Your task to perform on an android device: Search for the Best selling coffee table on Ikea Image 0: 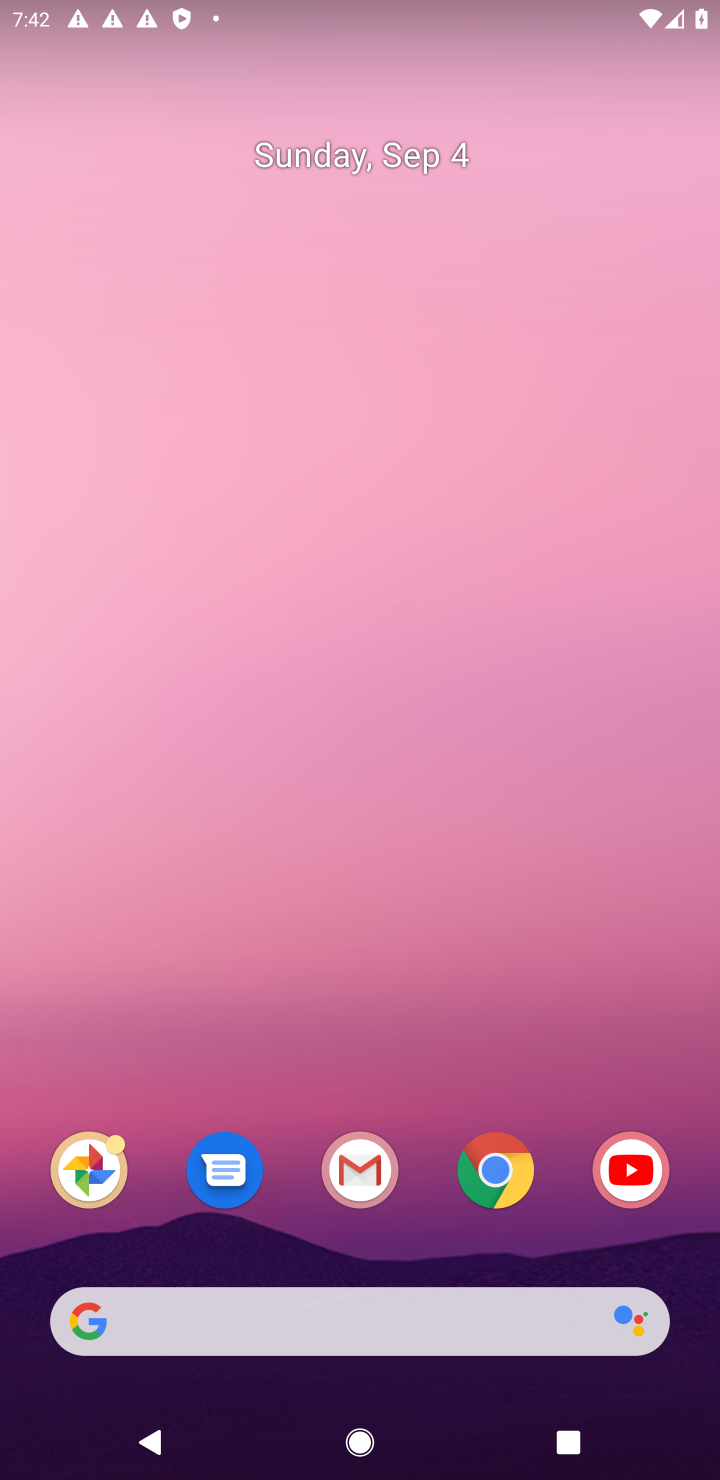
Step 0: click (484, 1170)
Your task to perform on an android device: Search for the Best selling coffee table on Ikea Image 1: 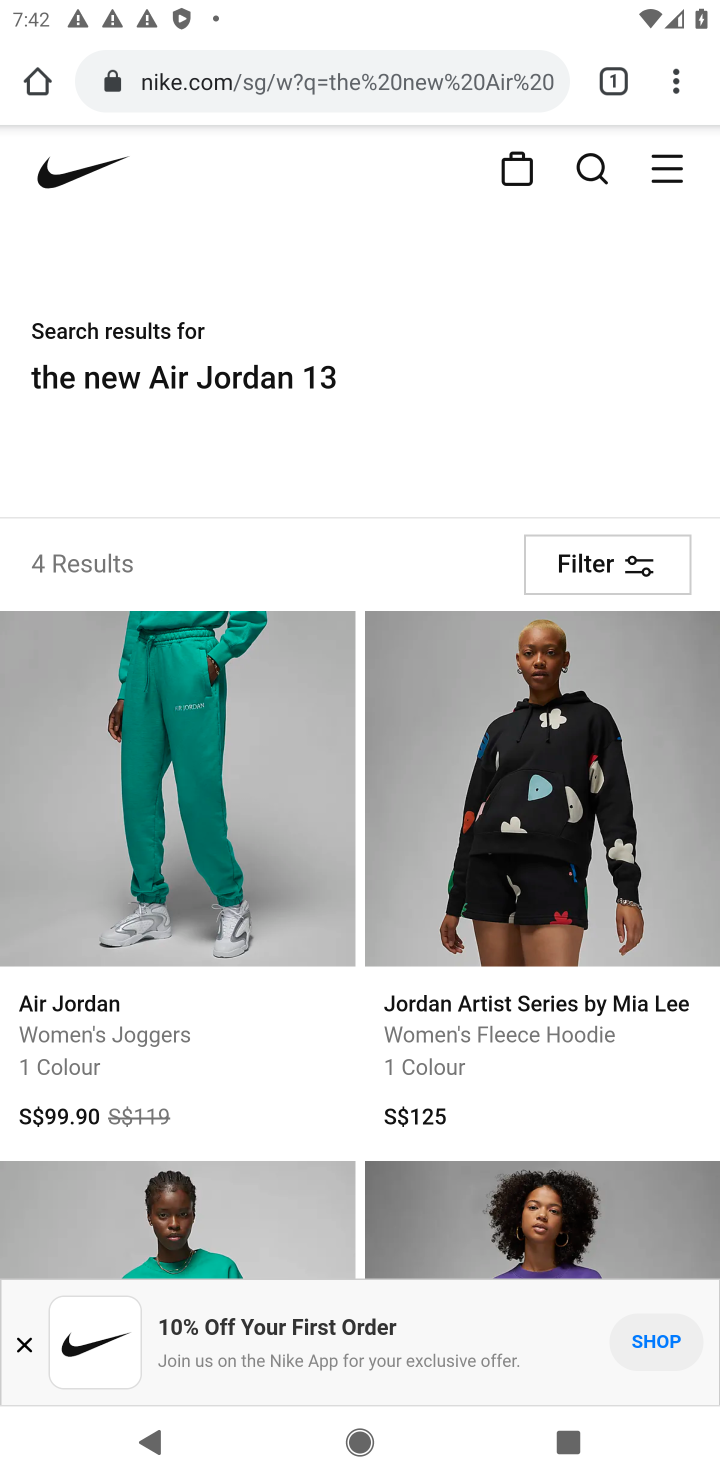
Step 1: click (280, 77)
Your task to perform on an android device: Search for the Best selling coffee table on Ikea Image 2: 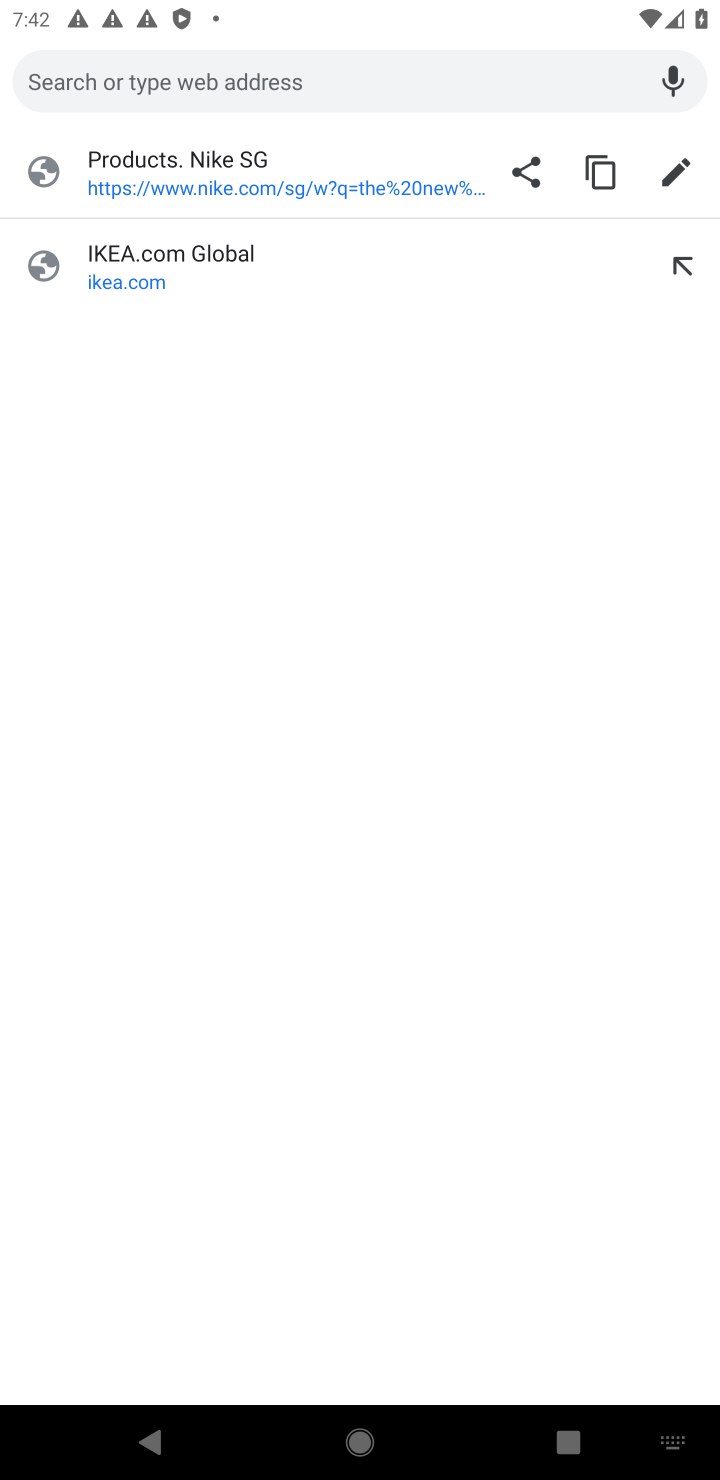
Step 2: type "IKea"
Your task to perform on an android device: Search for the Best selling coffee table on Ikea Image 3: 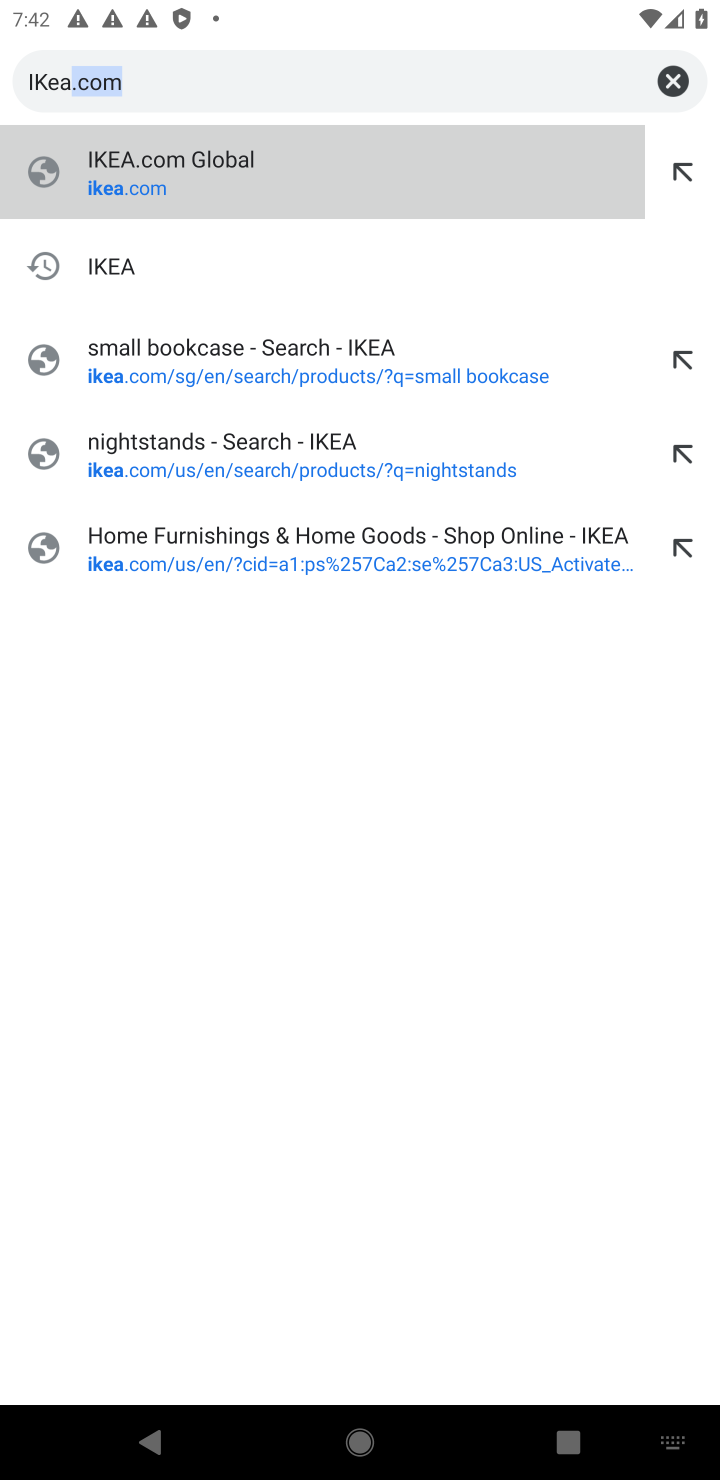
Step 3: click (122, 261)
Your task to perform on an android device: Search for the Best selling coffee table on Ikea Image 4: 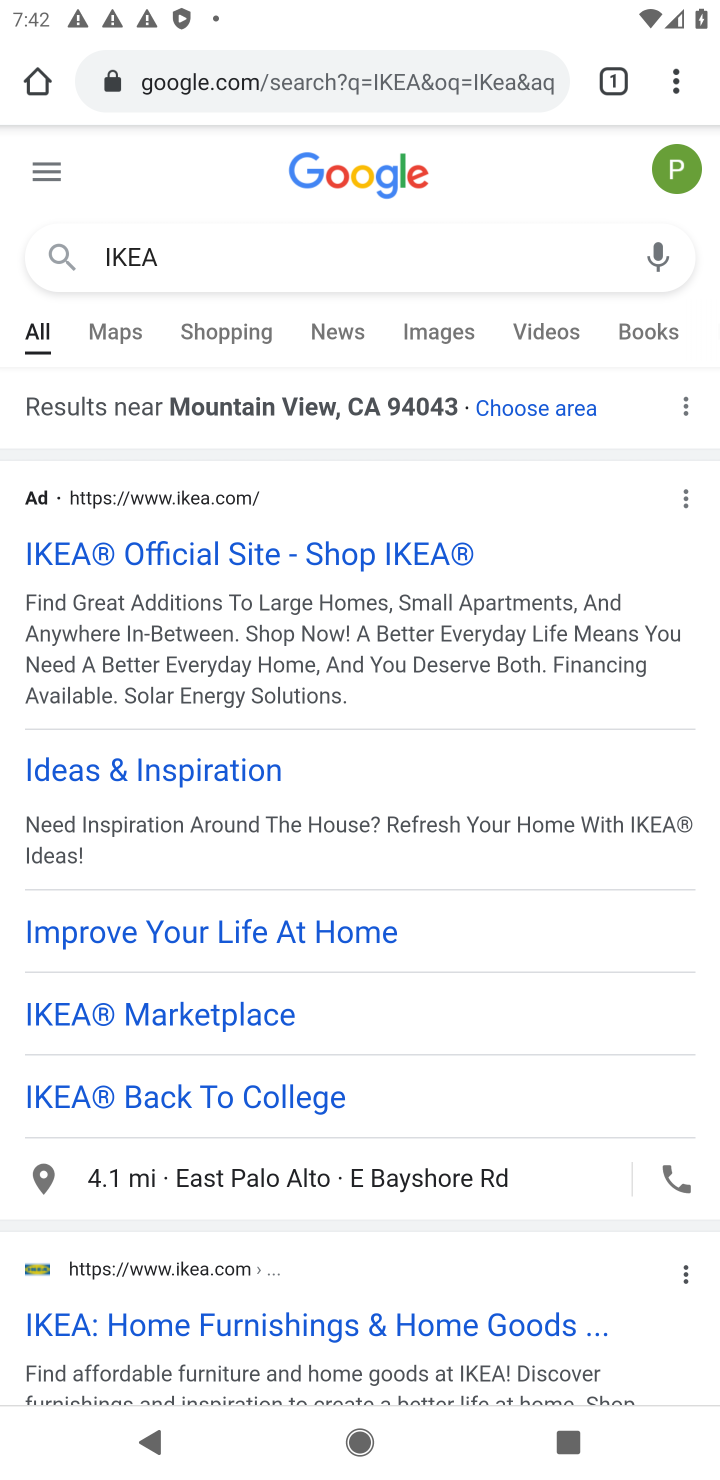
Step 4: click (216, 587)
Your task to perform on an android device: Search for the Best selling coffee table on Ikea Image 5: 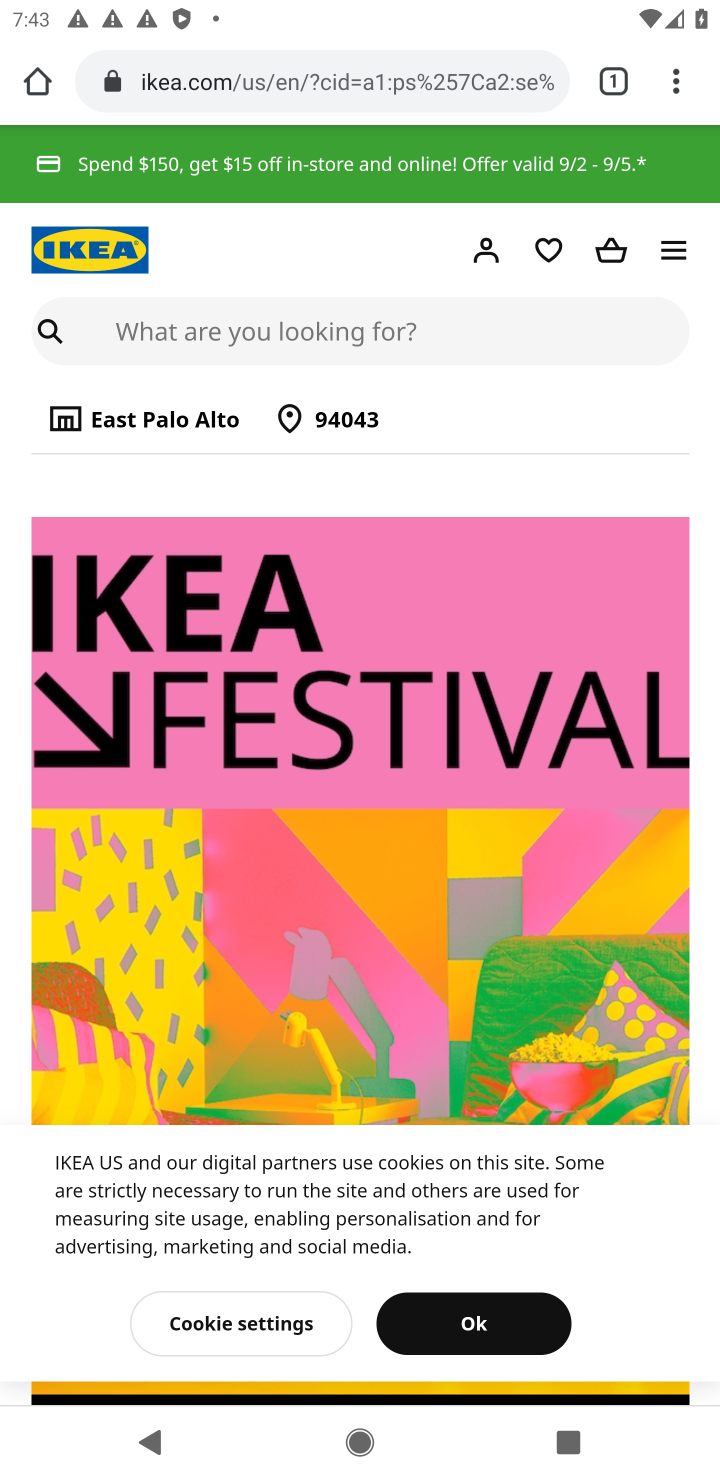
Step 5: click (392, 317)
Your task to perform on an android device: Search for the Best selling coffee table on Ikea Image 6: 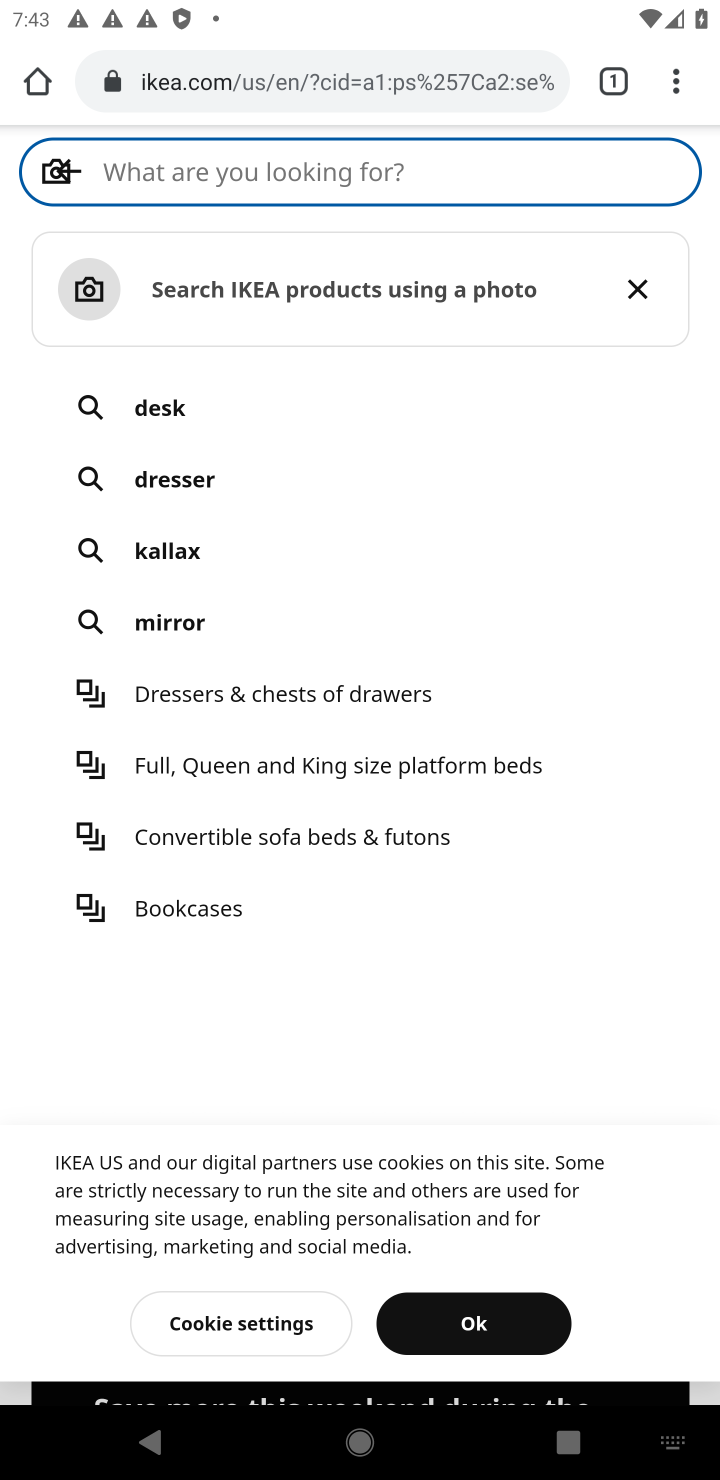
Step 6: type "the Best selling coffee table"
Your task to perform on an android device: Search for the Best selling coffee table on Ikea Image 7: 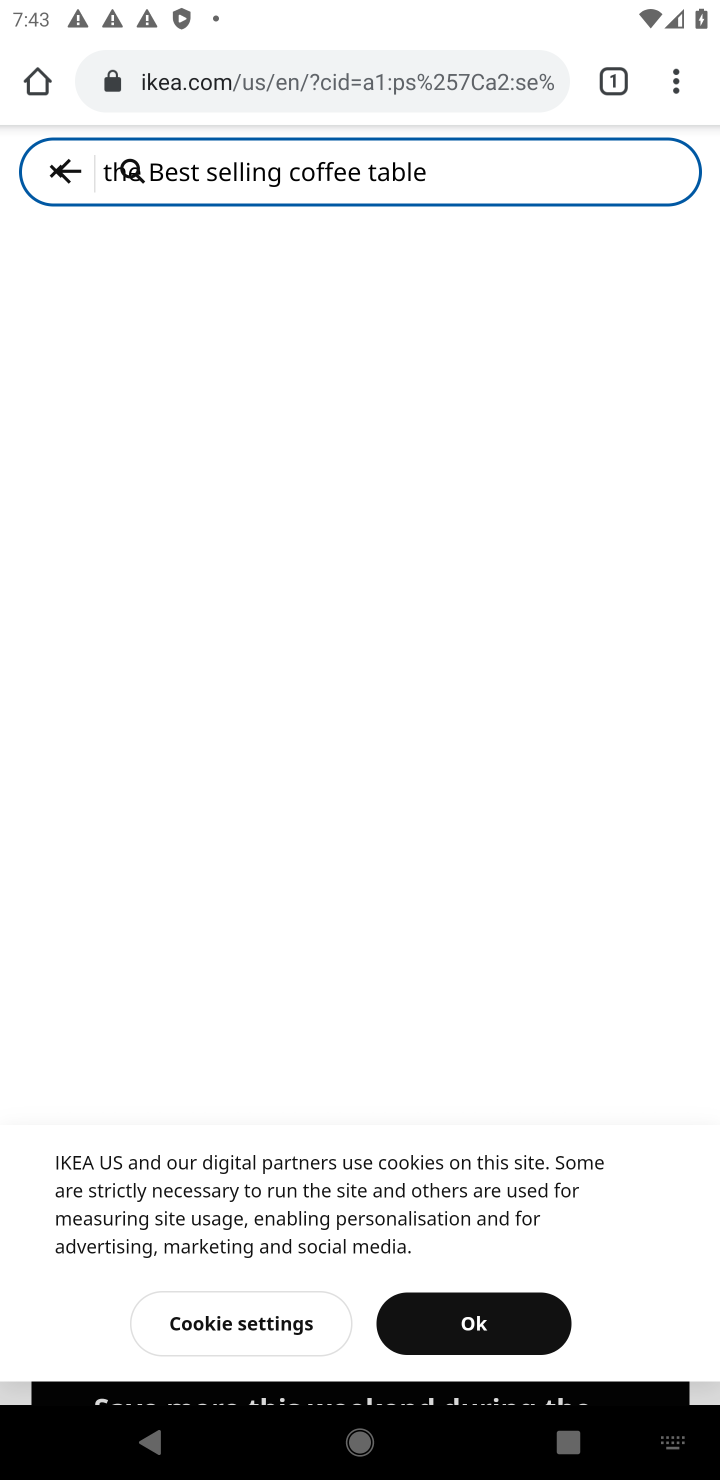
Step 7: click (436, 1308)
Your task to perform on an android device: Search for the Best selling coffee table on Ikea Image 8: 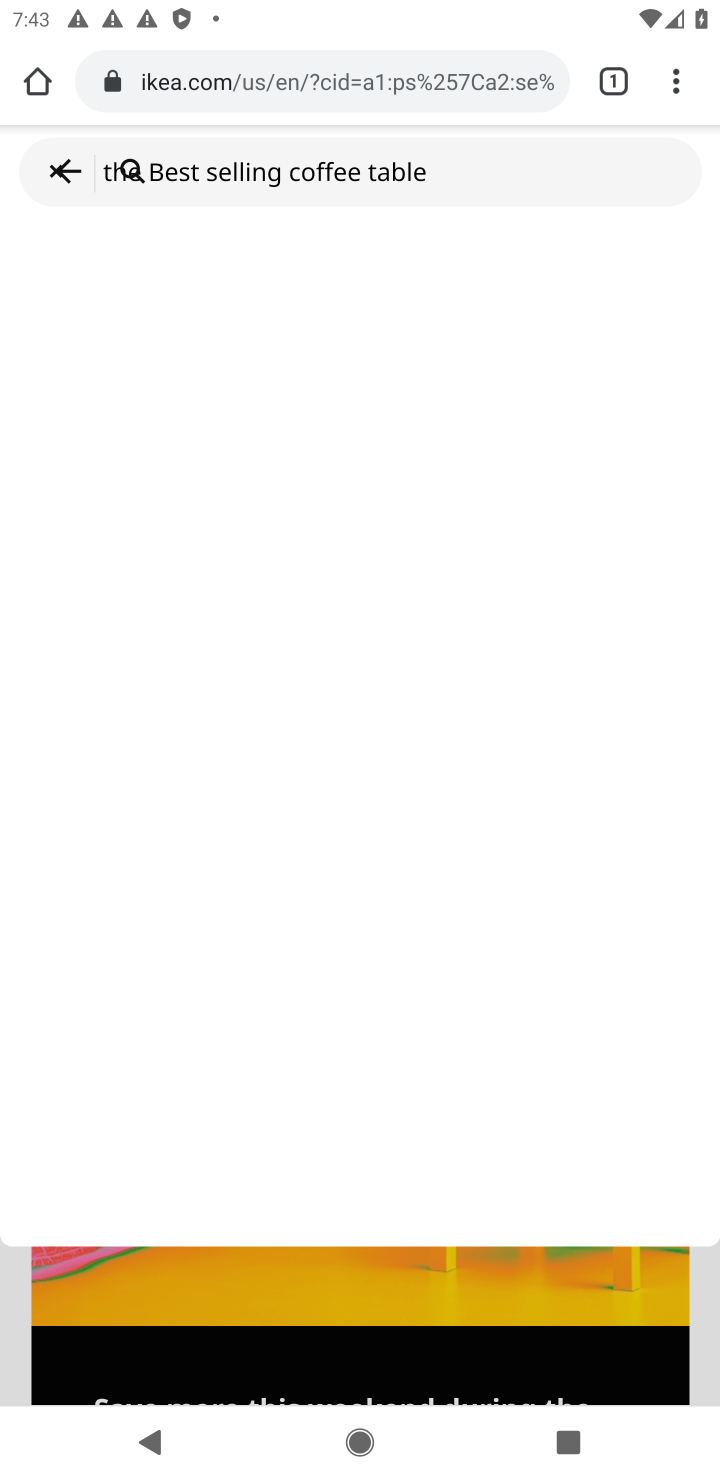
Step 8: click (127, 165)
Your task to perform on an android device: Search for the Best selling coffee table on Ikea Image 9: 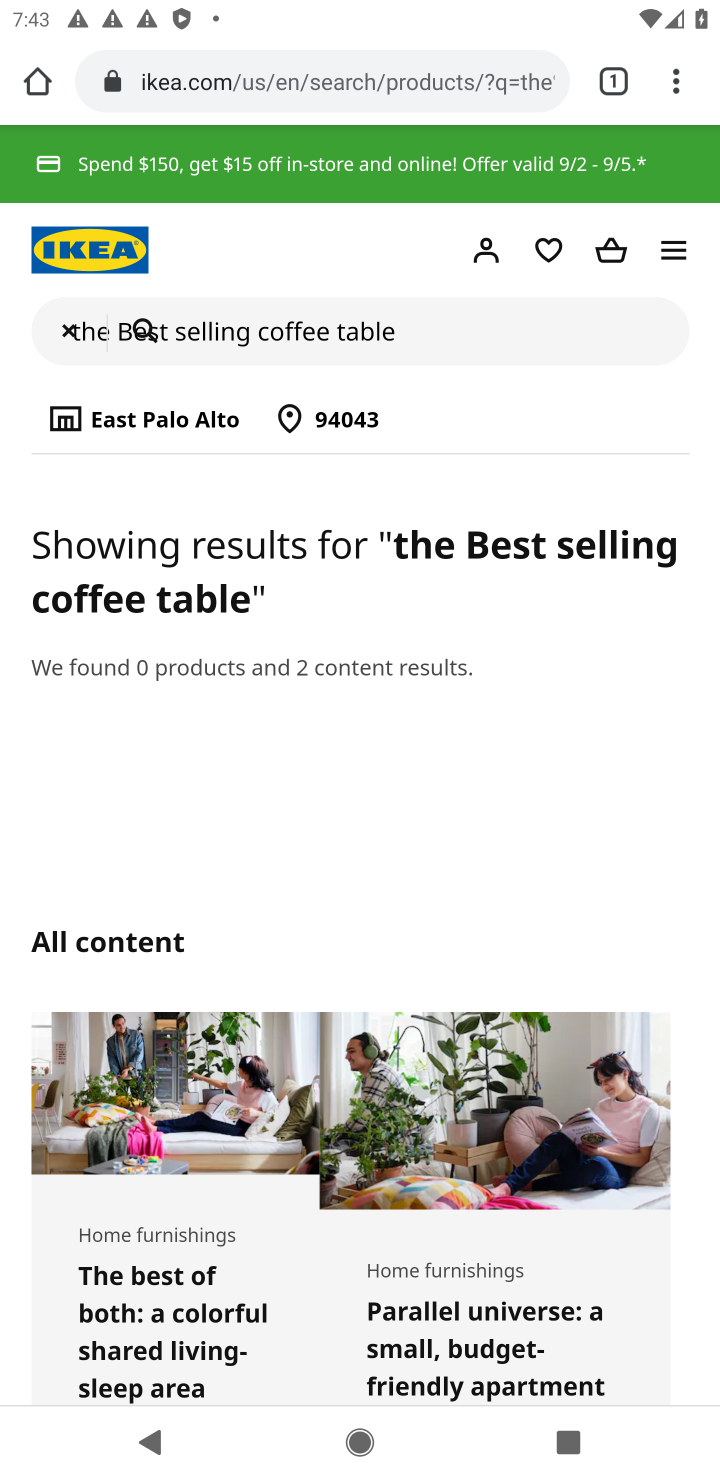
Step 9: task complete